Your task to perform on an android device: set an alarm Image 0: 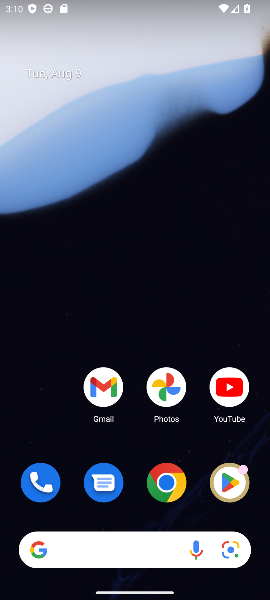
Step 0: drag from (130, 441) to (148, 92)
Your task to perform on an android device: set an alarm Image 1: 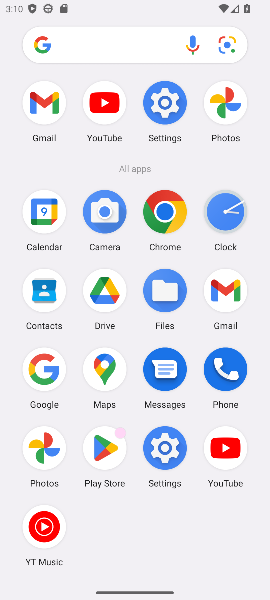
Step 1: click (224, 230)
Your task to perform on an android device: set an alarm Image 2: 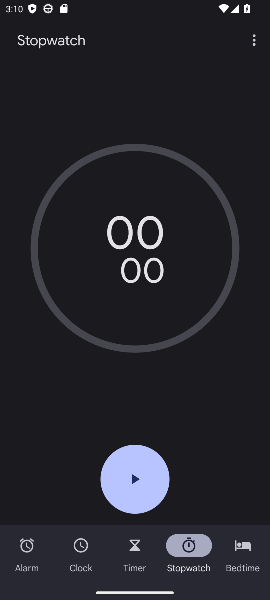
Step 2: click (25, 547)
Your task to perform on an android device: set an alarm Image 3: 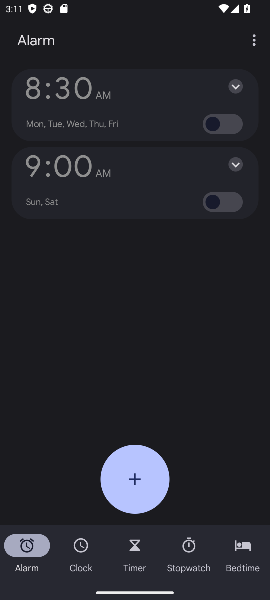
Step 3: click (230, 120)
Your task to perform on an android device: set an alarm Image 4: 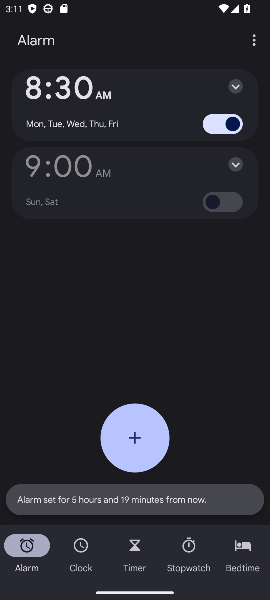
Step 4: task complete